Your task to perform on an android device: manage bookmarks in the chrome app Image 0: 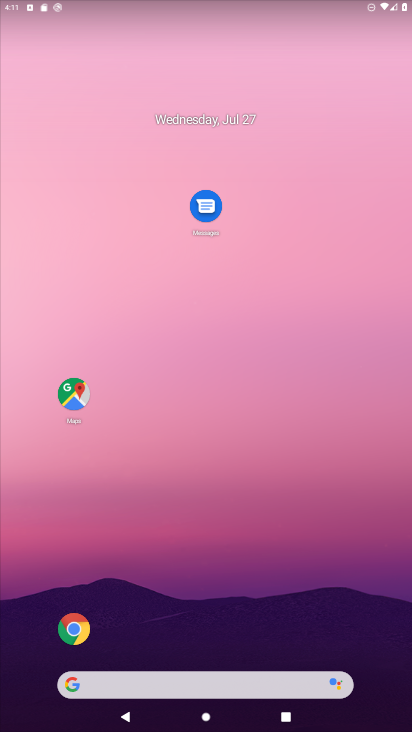
Step 0: click (69, 645)
Your task to perform on an android device: manage bookmarks in the chrome app Image 1: 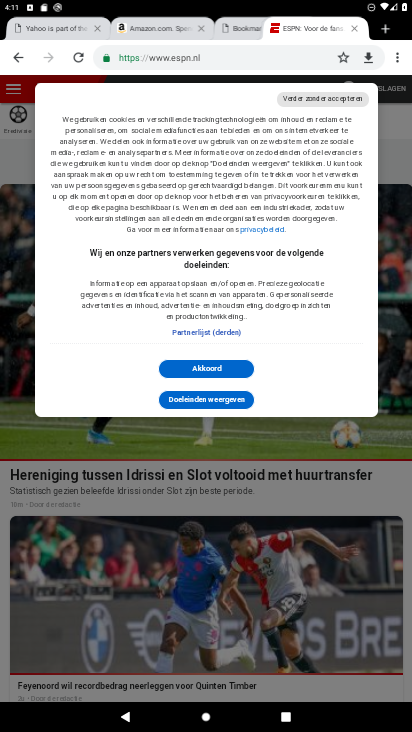
Step 1: click (398, 57)
Your task to perform on an android device: manage bookmarks in the chrome app Image 2: 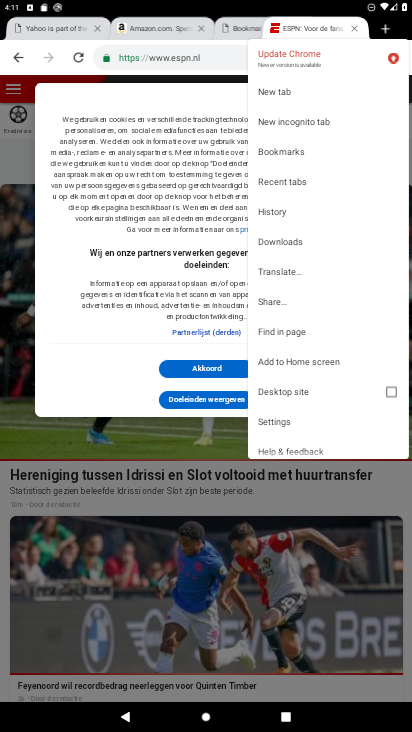
Step 2: click (286, 154)
Your task to perform on an android device: manage bookmarks in the chrome app Image 3: 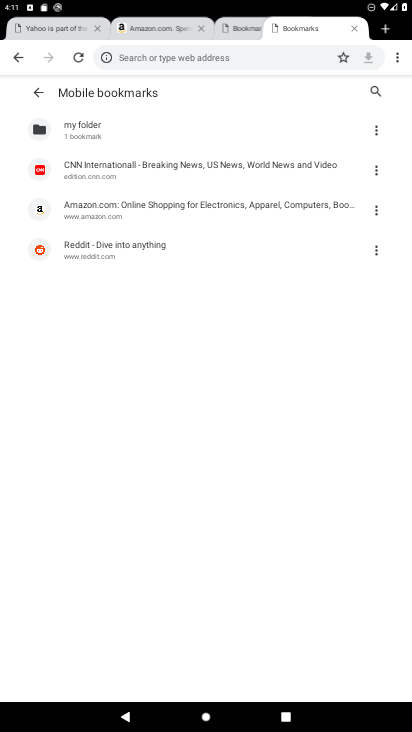
Step 3: click (380, 251)
Your task to perform on an android device: manage bookmarks in the chrome app Image 4: 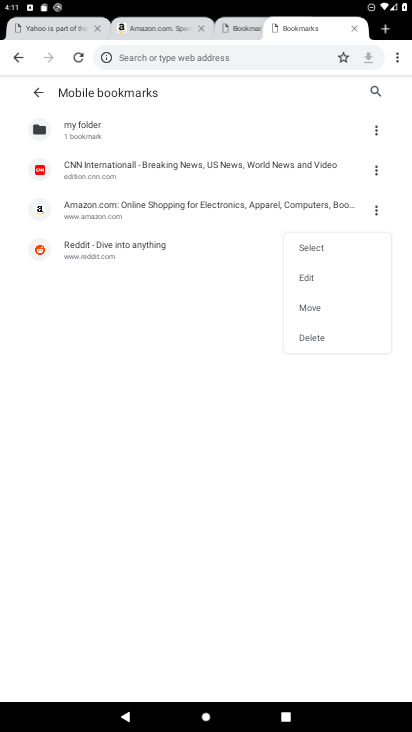
Step 4: click (311, 336)
Your task to perform on an android device: manage bookmarks in the chrome app Image 5: 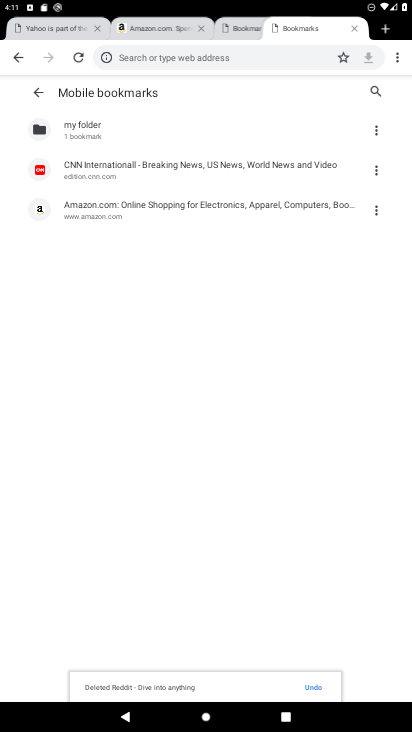
Step 5: task complete